Your task to perform on an android device: Is it going to rain tomorrow? Image 0: 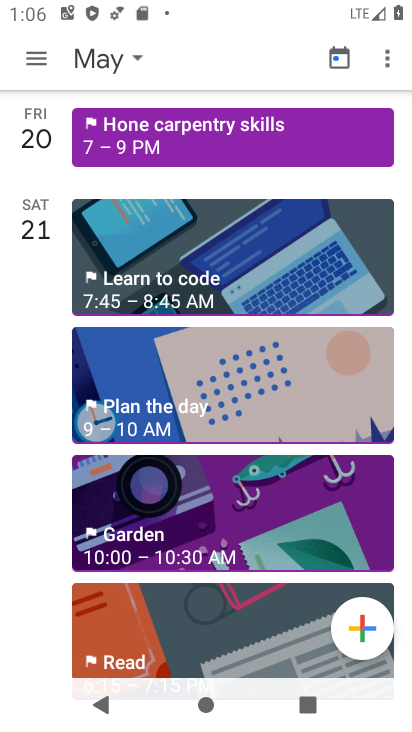
Step 0: press home button
Your task to perform on an android device: Is it going to rain tomorrow? Image 1: 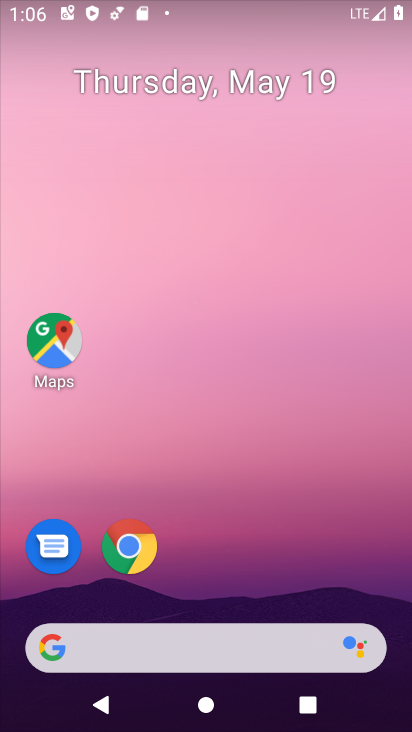
Step 1: click (203, 648)
Your task to perform on an android device: Is it going to rain tomorrow? Image 2: 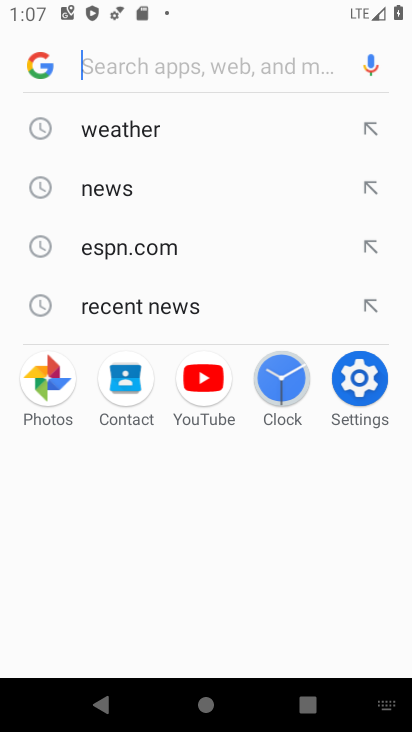
Step 2: click (111, 138)
Your task to perform on an android device: Is it going to rain tomorrow? Image 3: 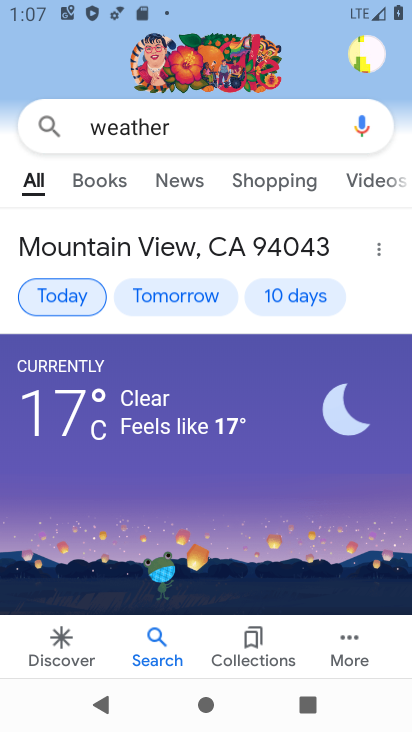
Step 3: task complete